Your task to perform on an android device: turn off location Image 0: 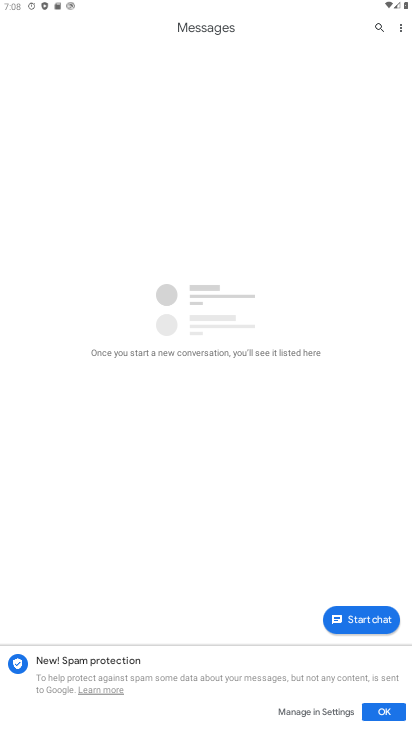
Step 0: press home button
Your task to perform on an android device: turn off location Image 1: 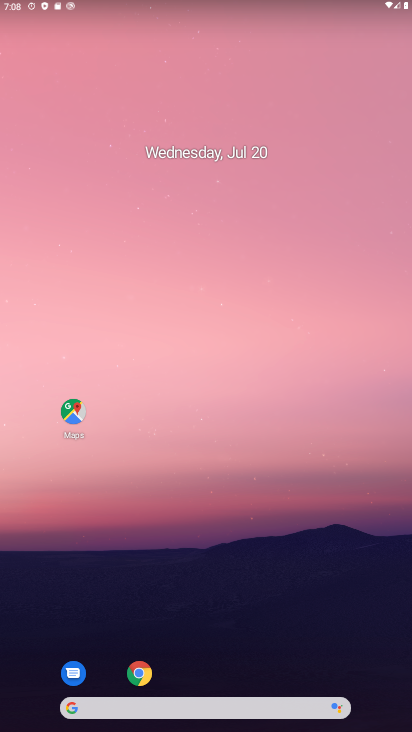
Step 1: drag from (352, 656) to (170, 67)
Your task to perform on an android device: turn off location Image 2: 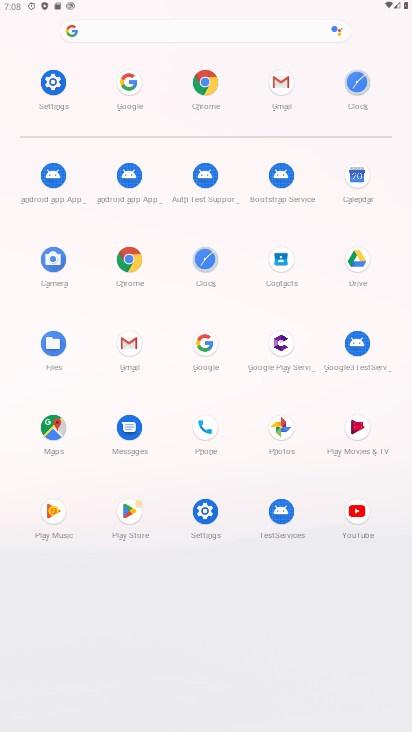
Step 2: click (211, 504)
Your task to perform on an android device: turn off location Image 3: 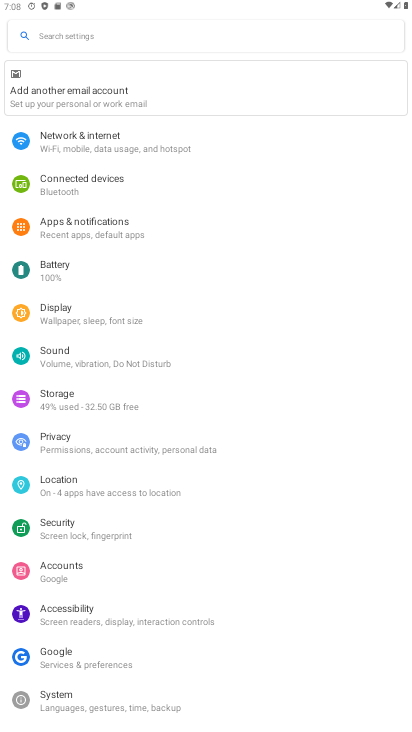
Step 3: click (62, 473)
Your task to perform on an android device: turn off location Image 4: 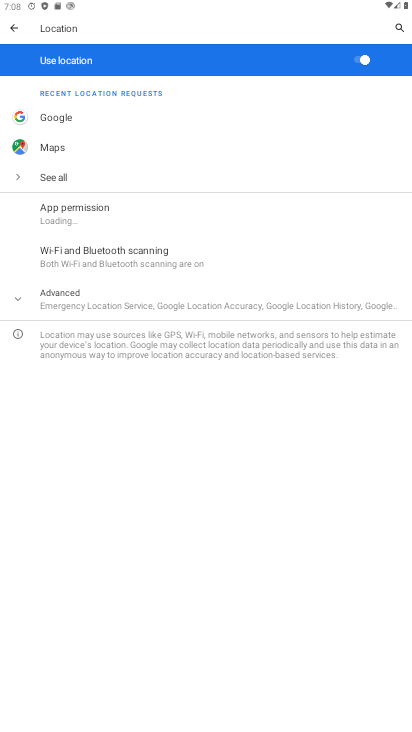
Step 4: click (345, 56)
Your task to perform on an android device: turn off location Image 5: 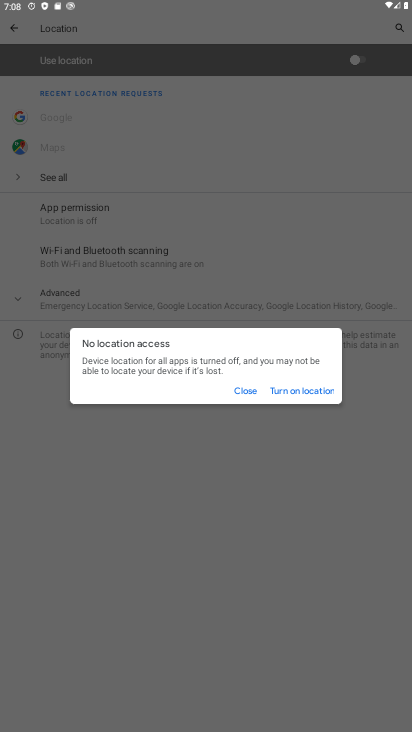
Step 5: task complete